Your task to perform on an android device: turn on priority inbox in the gmail app Image 0: 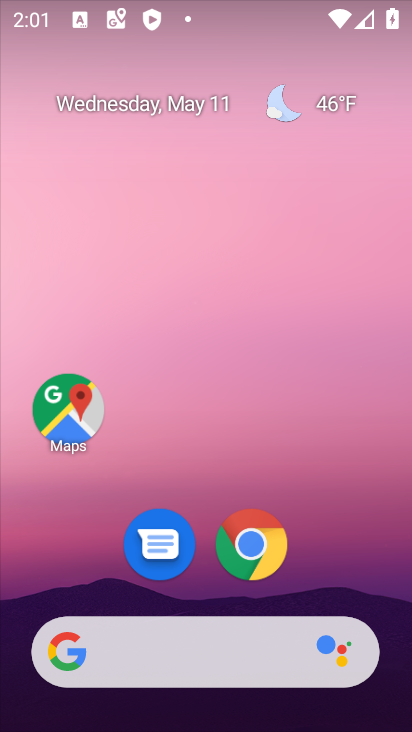
Step 0: drag from (366, 521) to (299, 81)
Your task to perform on an android device: turn on priority inbox in the gmail app Image 1: 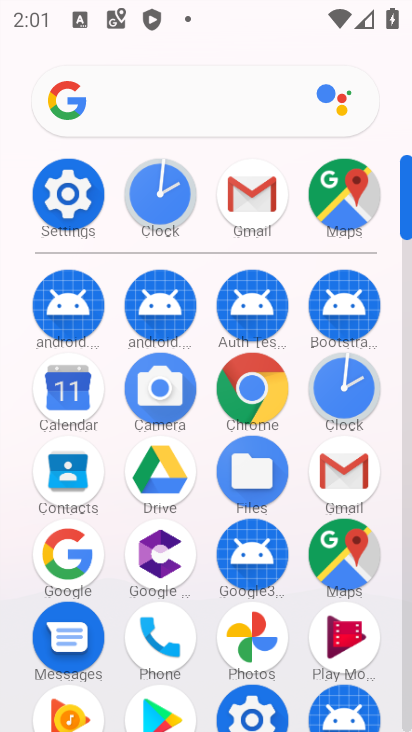
Step 1: click (408, 714)
Your task to perform on an android device: turn on priority inbox in the gmail app Image 2: 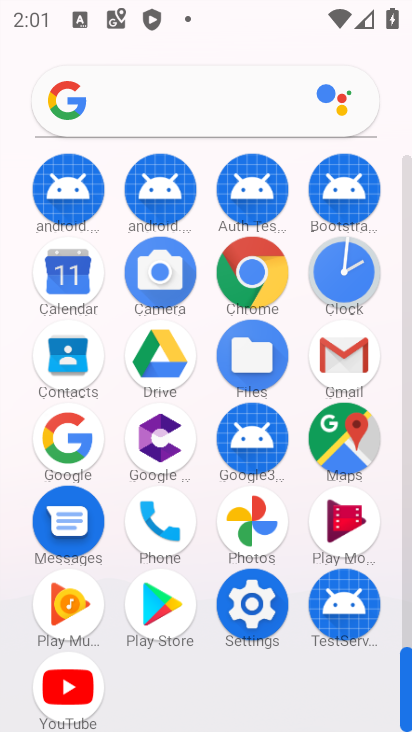
Step 2: click (341, 355)
Your task to perform on an android device: turn on priority inbox in the gmail app Image 3: 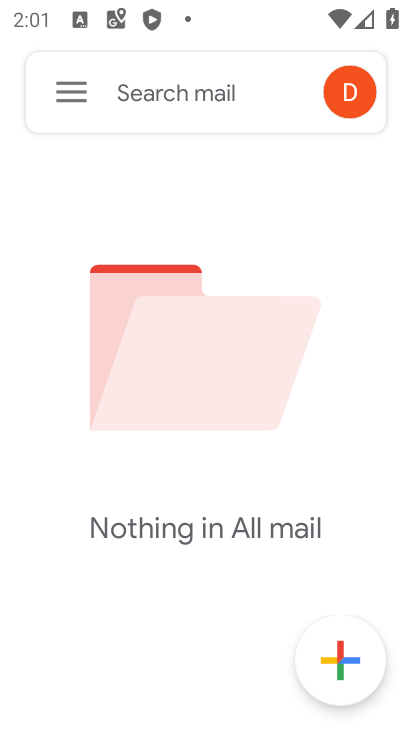
Step 3: click (65, 89)
Your task to perform on an android device: turn on priority inbox in the gmail app Image 4: 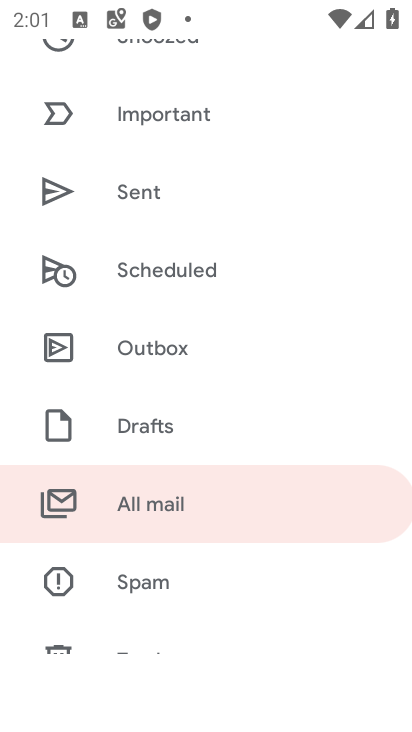
Step 4: drag from (276, 597) to (295, 139)
Your task to perform on an android device: turn on priority inbox in the gmail app Image 5: 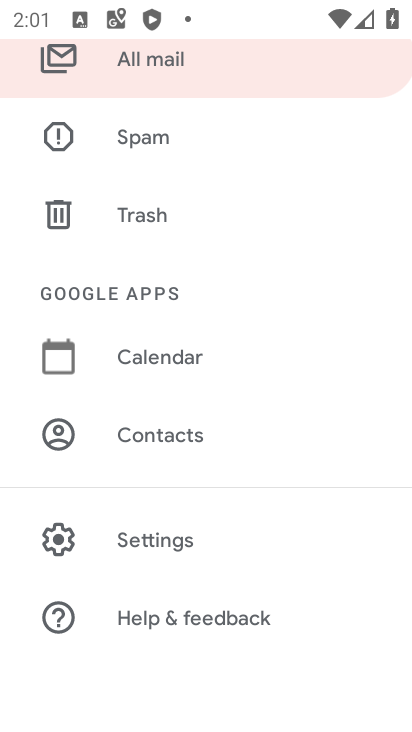
Step 5: click (132, 537)
Your task to perform on an android device: turn on priority inbox in the gmail app Image 6: 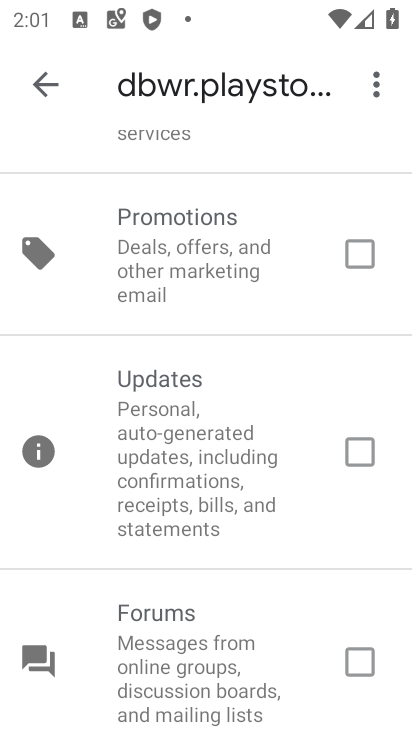
Step 6: press back button
Your task to perform on an android device: turn on priority inbox in the gmail app Image 7: 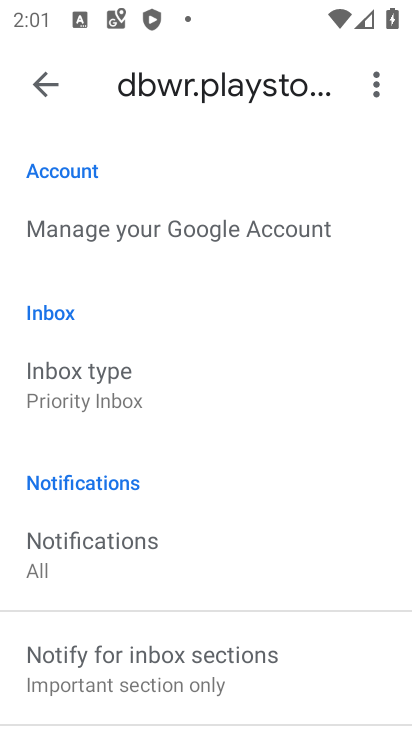
Step 7: click (81, 390)
Your task to perform on an android device: turn on priority inbox in the gmail app Image 8: 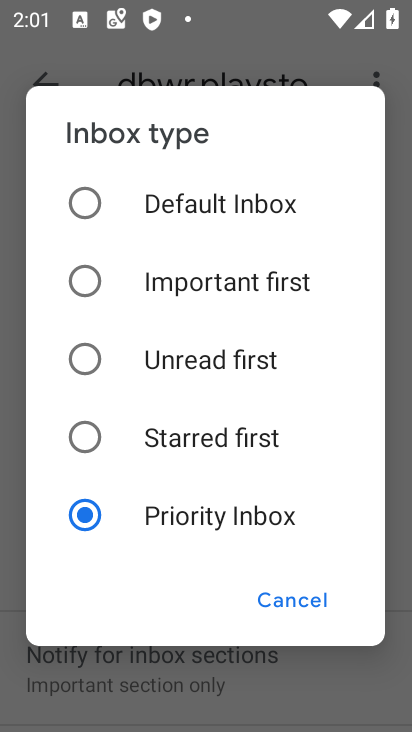
Step 8: task complete